Your task to perform on an android device: open a bookmark in the chrome app Image 0: 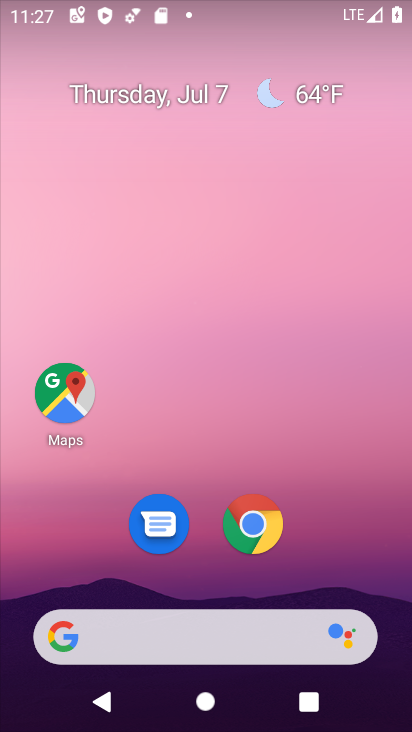
Step 0: click (262, 525)
Your task to perform on an android device: open a bookmark in the chrome app Image 1: 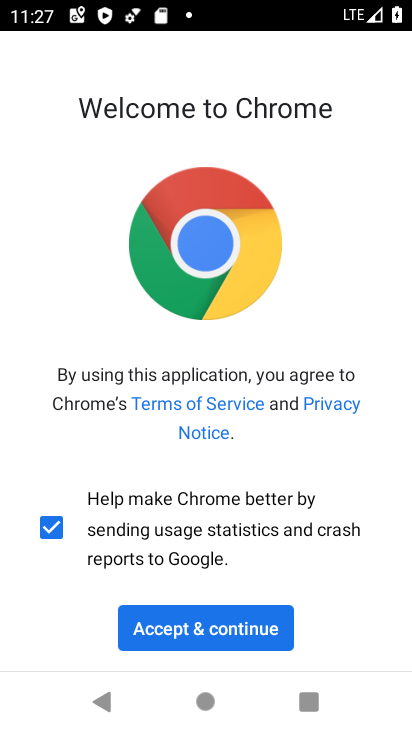
Step 1: click (265, 637)
Your task to perform on an android device: open a bookmark in the chrome app Image 2: 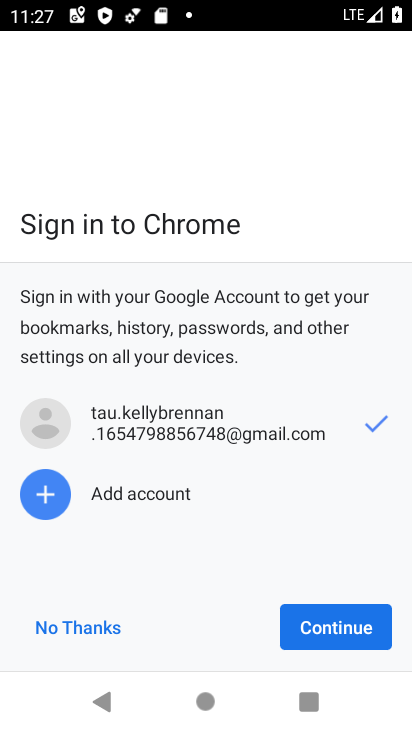
Step 2: click (337, 631)
Your task to perform on an android device: open a bookmark in the chrome app Image 3: 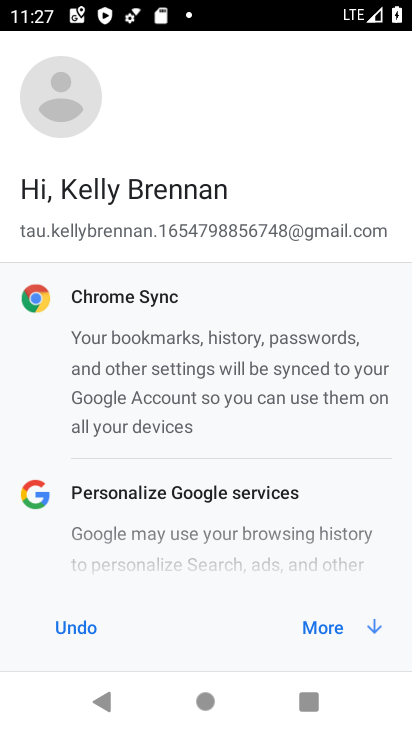
Step 3: click (335, 625)
Your task to perform on an android device: open a bookmark in the chrome app Image 4: 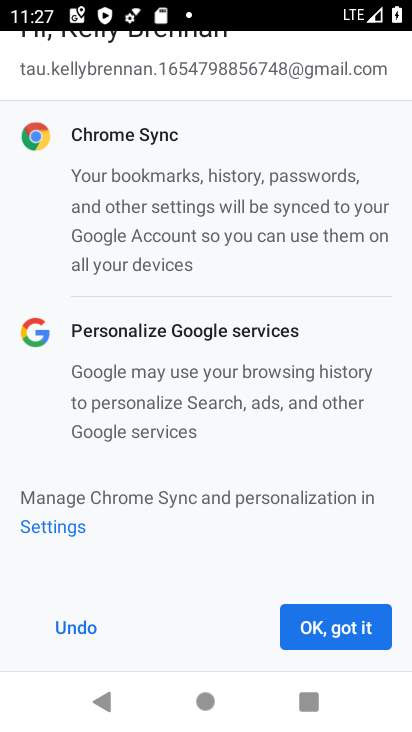
Step 4: click (335, 623)
Your task to perform on an android device: open a bookmark in the chrome app Image 5: 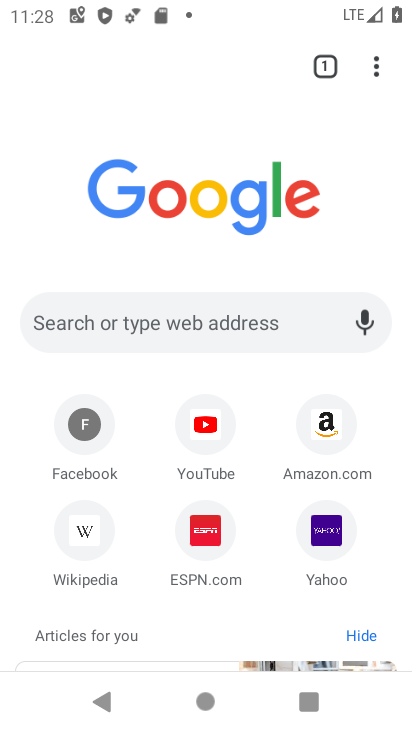
Step 5: click (373, 66)
Your task to perform on an android device: open a bookmark in the chrome app Image 6: 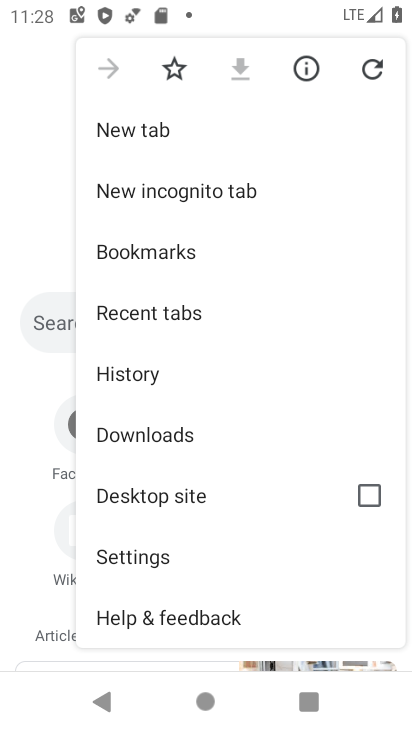
Step 6: click (178, 251)
Your task to perform on an android device: open a bookmark in the chrome app Image 7: 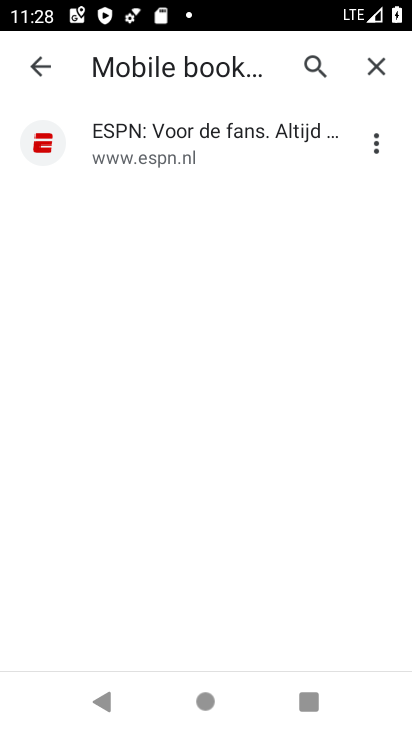
Step 7: click (189, 148)
Your task to perform on an android device: open a bookmark in the chrome app Image 8: 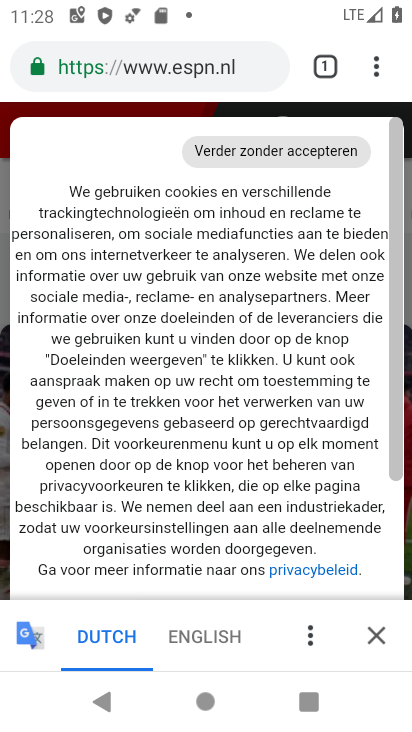
Step 8: task complete